Your task to perform on an android device: Go to sound settings Image 0: 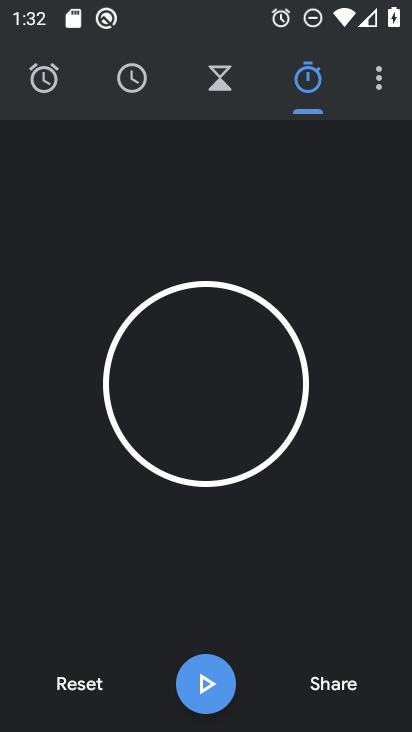
Step 0: press home button
Your task to perform on an android device: Go to sound settings Image 1: 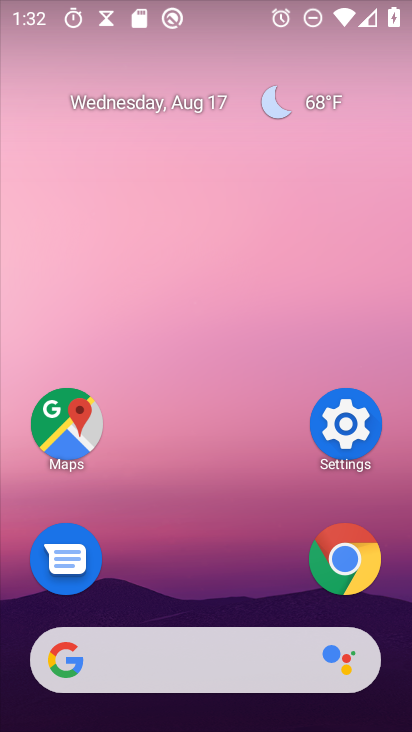
Step 1: click (357, 427)
Your task to perform on an android device: Go to sound settings Image 2: 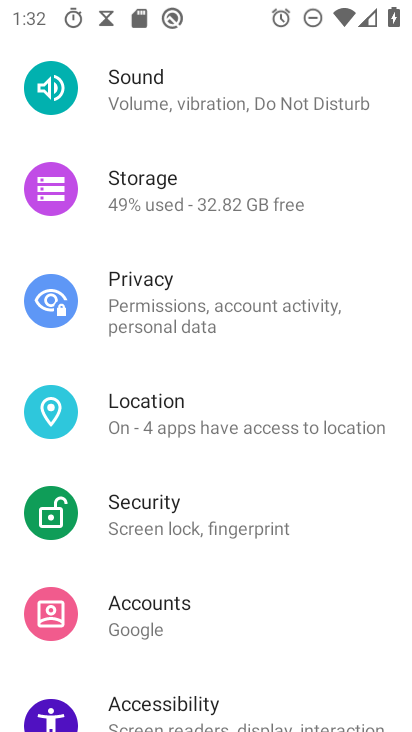
Step 2: click (167, 92)
Your task to perform on an android device: Go to sound settings Image 3: 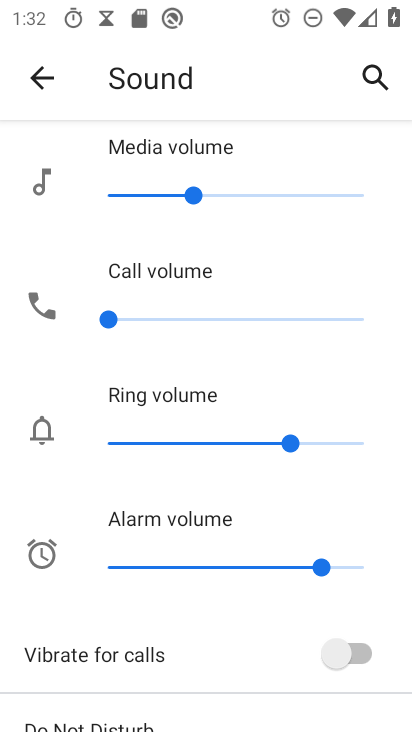
Step 3: task complete